Your task to perform on an android device: Go to Google Image 0: 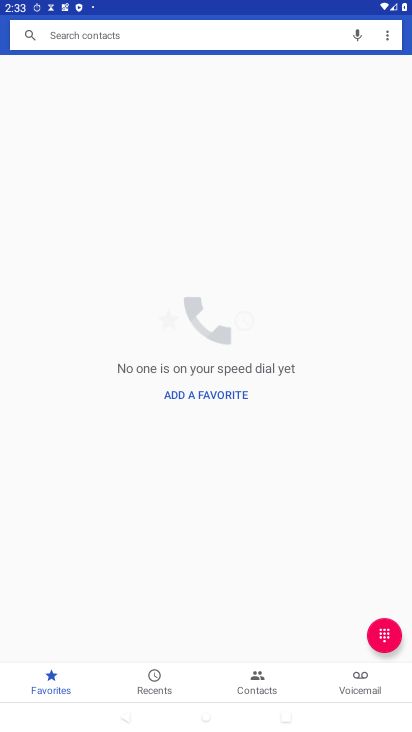
Step 0: press home button
Your task to perform on an android device: Go to Google Image 1: 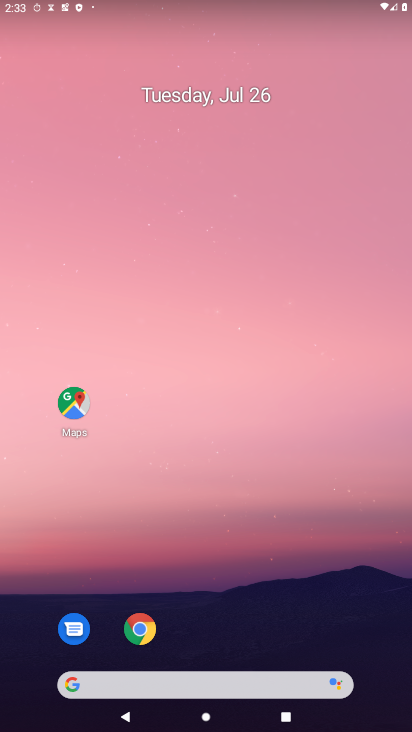
Step 1: drag from (277, 651) to (384, 8)
Your task to perform on an android device: Go to Google Image 2: 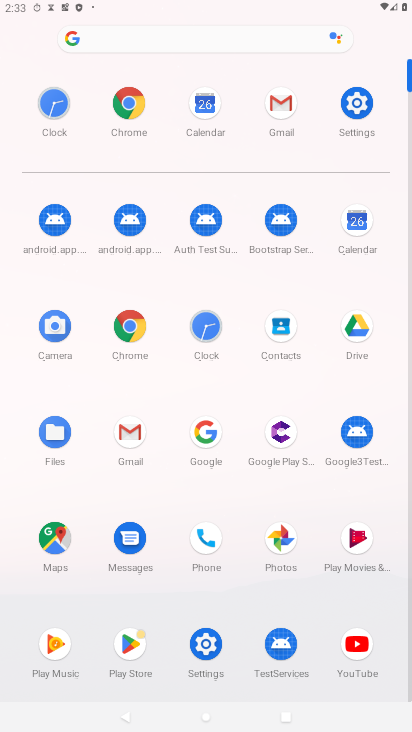
Step 2: click (213, 445)
Your task to perform on an android device: Go to Google Image 3: 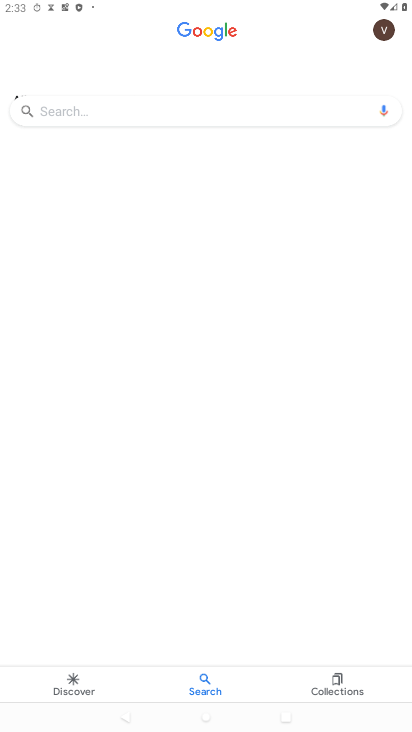
Step 3: task complete